Your task to perform on an android device: change notification settings in the gmail app Image 0: 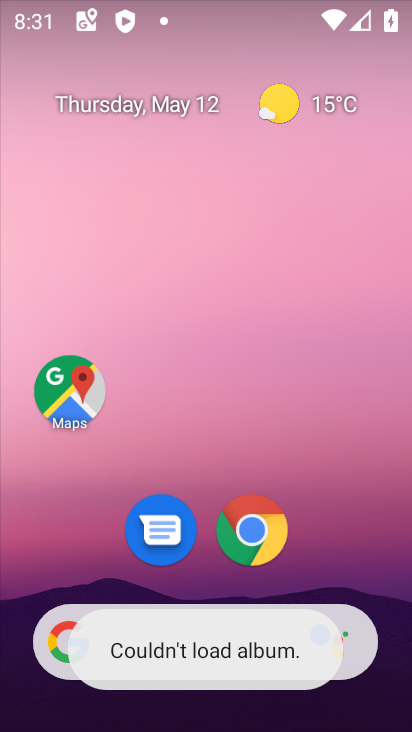
Step 0: press home button
Your task to perform on an android device: change notification settings in the gmail app Image 1: 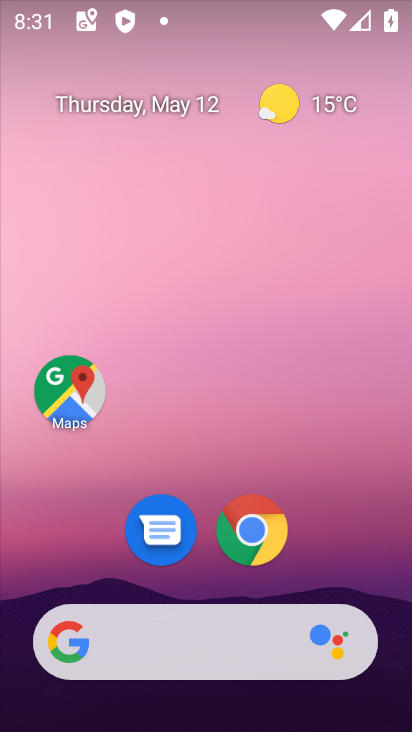
Step 1: drag from (254, 720) to (175, 19)
Your task to perform on an android device: change notification settings in the gmail app Image 2: 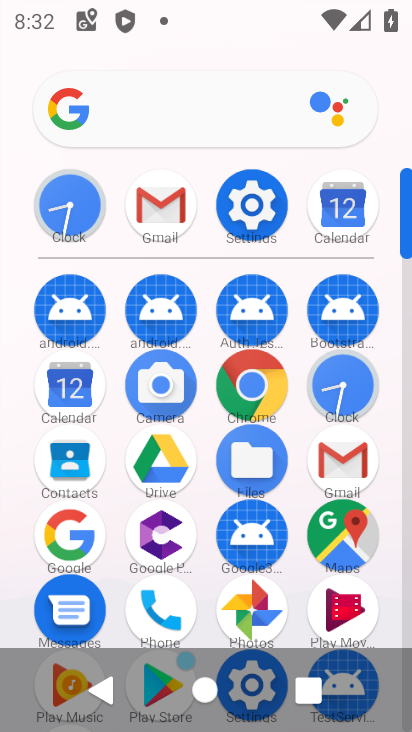
Step 2: click (157, 202)
Your task to perform on an android device: change notification settings in the gmail app Image 3: 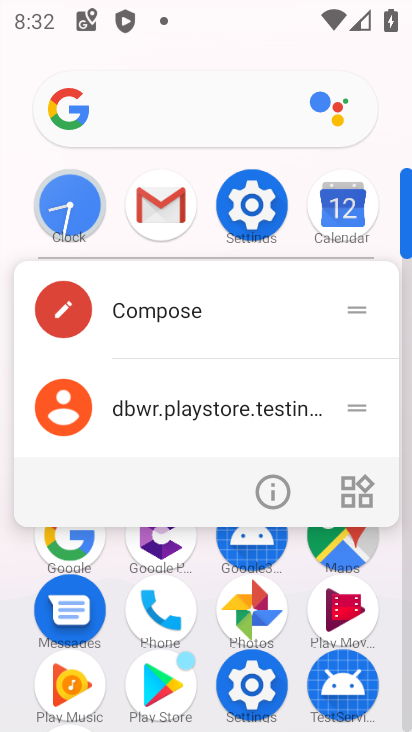
Step 3: click (275, 511)
Your task to perform on an android device: change notification settings in the gmail app Image 4: 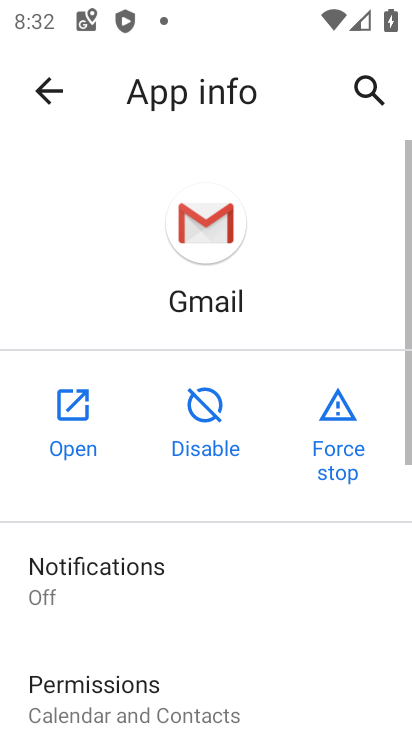
Step 4: click (69, 585)
Your task to perform on an android device: change notification settings in the gmail app Image 5: 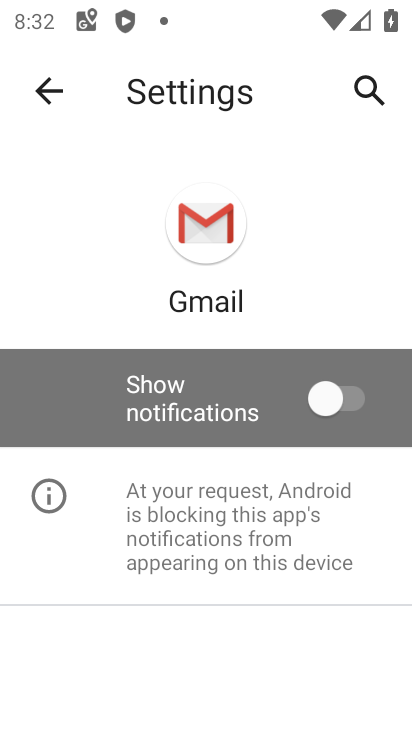
Step 5: click (330, 399)
Your task to perform on an android device: change notification settings in the gmail app Image 6: 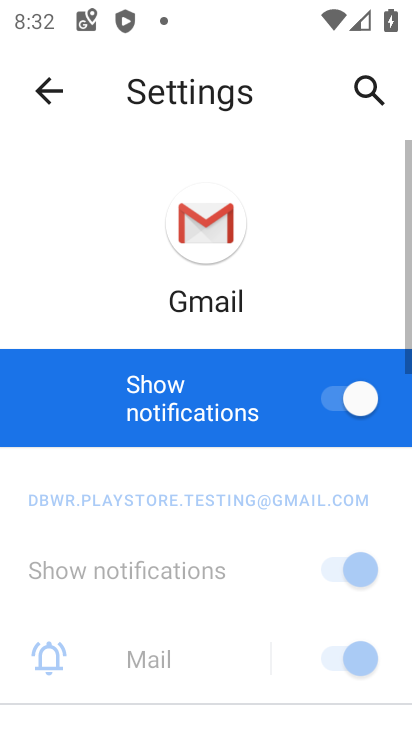
Step 6: task complete